Your task to perform on an android device: Search for 8K TVs on Best Buy. Image 0: 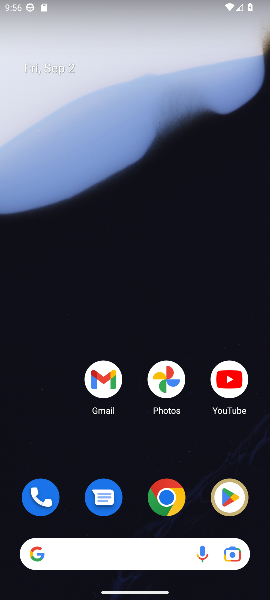
Step 0: drag from (132, 330) to (115, 189)
Your task to perform on an android device: Search for 8K TVs on Best Buy. Image 1: 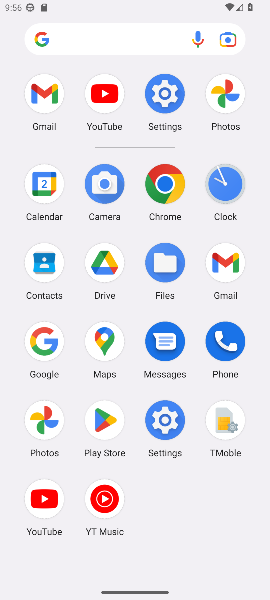
Step 1: click (38, 351)
Your task to perform on an android device: Search for 8K TVs on Best Buy. Image 2: 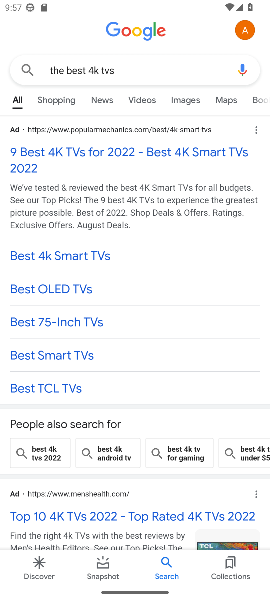
Step 2: task complete